Your task to perform on an android device: Open sound settings Image 0: 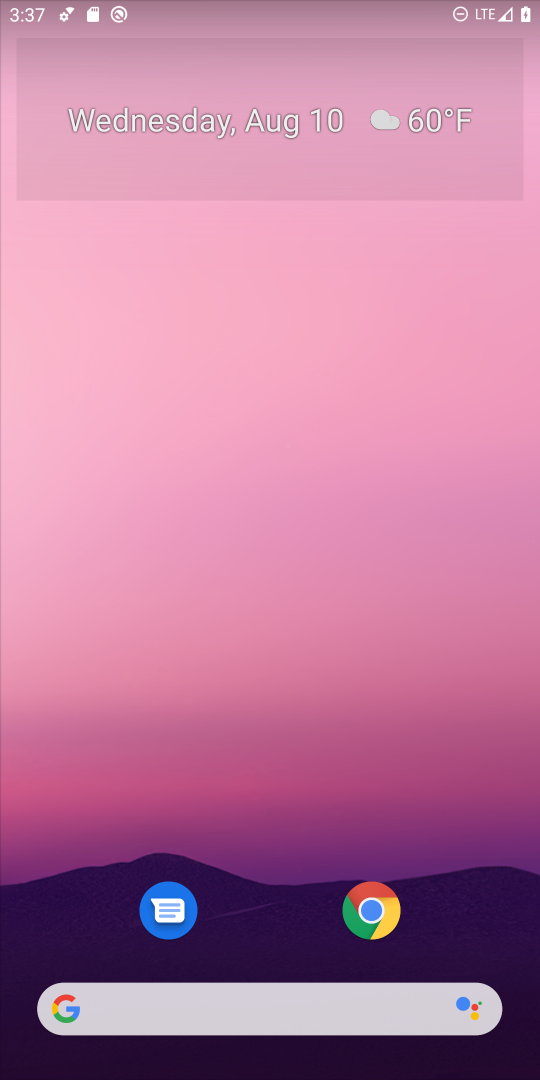
Step 0: drag from (255, 943) to (268, 38)
Your task to perform on an android device: Open sound settings Image 1: 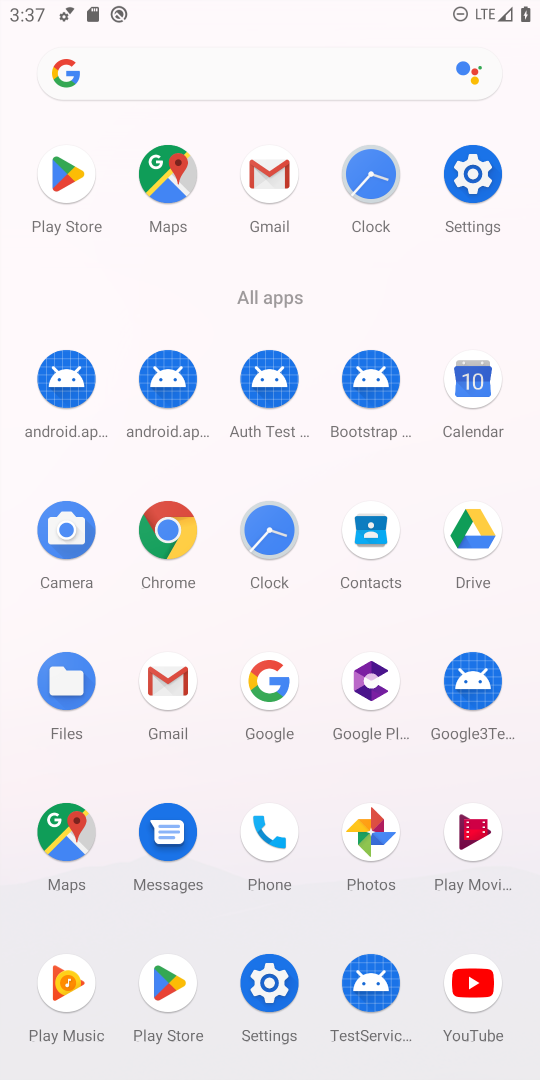
Step 1: click (480, 189)
Your task to perform on an android device: Open sound settings Image 2: 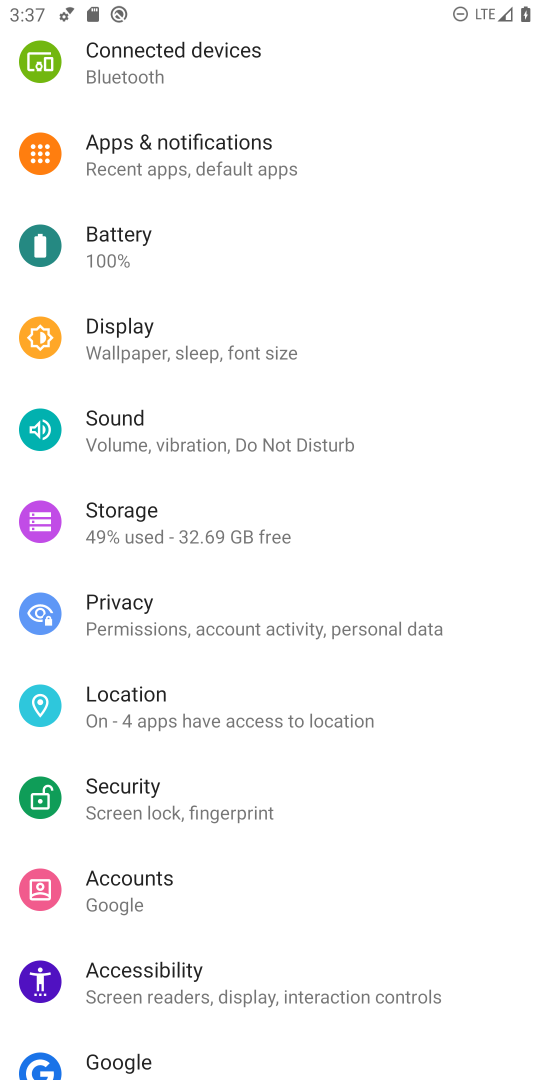
Step 2: click (227, 430)
Your task to perform on an android device: Open sound settings Image 3: 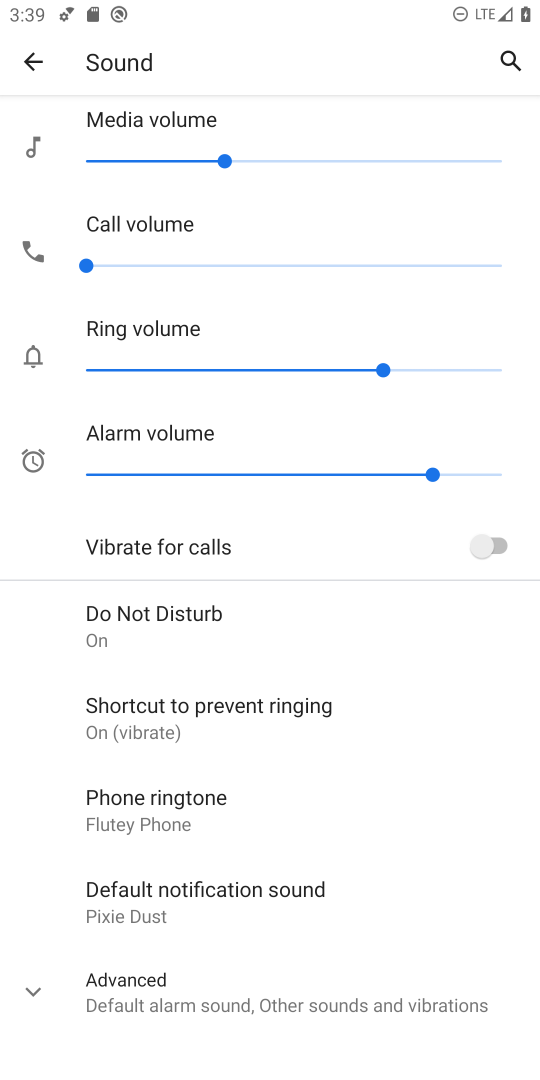
Step 3: task complete